Your task to perform on an android device: open a new tab in the chrome app Image 0: 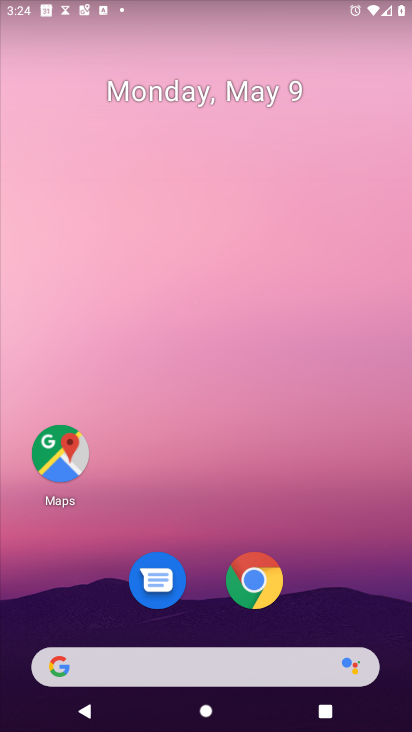
Step 0: click (253, 582)
Your task to perform on an android device: open a new tab in the chrome app Image 1: 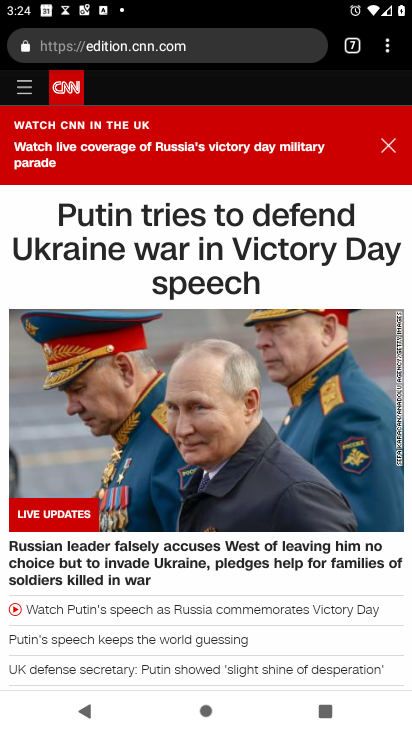
Step 1: click (380, 47)
Your task to perform on an android device: open a new tab in the chrome app Image 2: 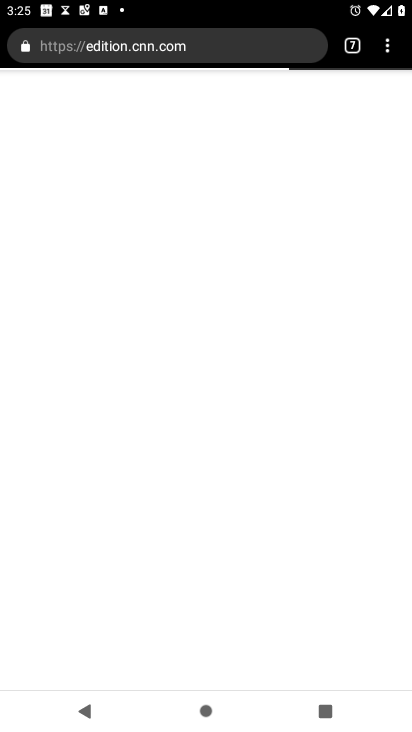
Step 2: click (354, 47)
Your task to perform on an android device: open a new tab in the chrome app Image 3: 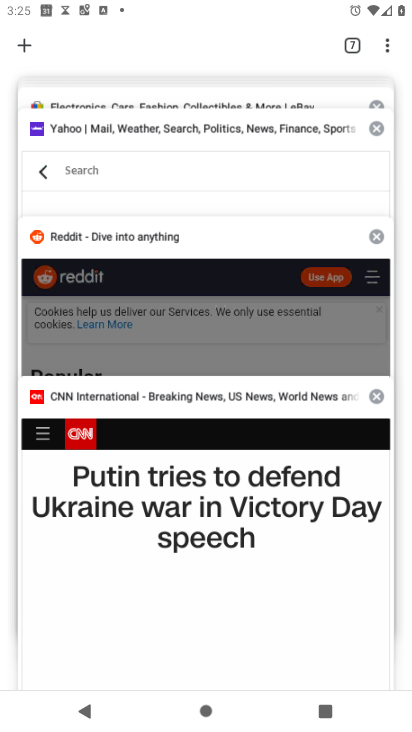
Step 3: click (21, 57)
Your task to perform on an android device: open a new tab in the chrome app Image 4: 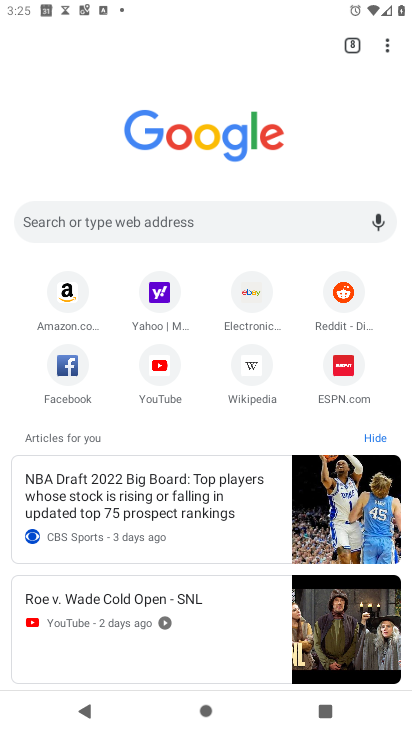
Step 4: task complete